Your task to perform on an android device: Search for energizer triple a on walmart.com, select the first entry, and add it to the cart. Image 0: 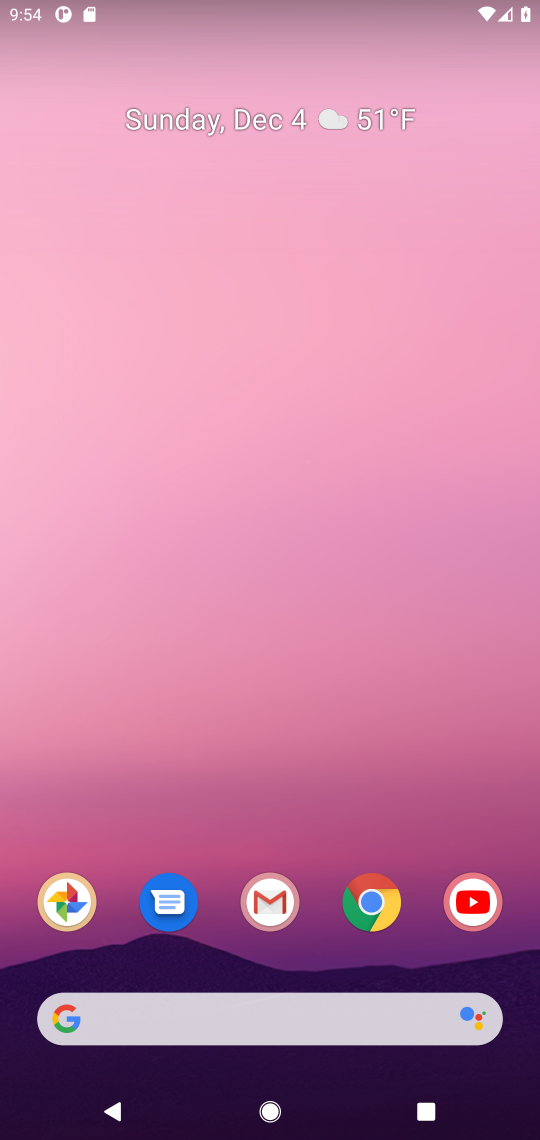
Step 0: click (381, 899)
Your task to perform on an android device: Search for energizer triple a on walmart.com, select the first entry, and add it to the cart. Image 1: 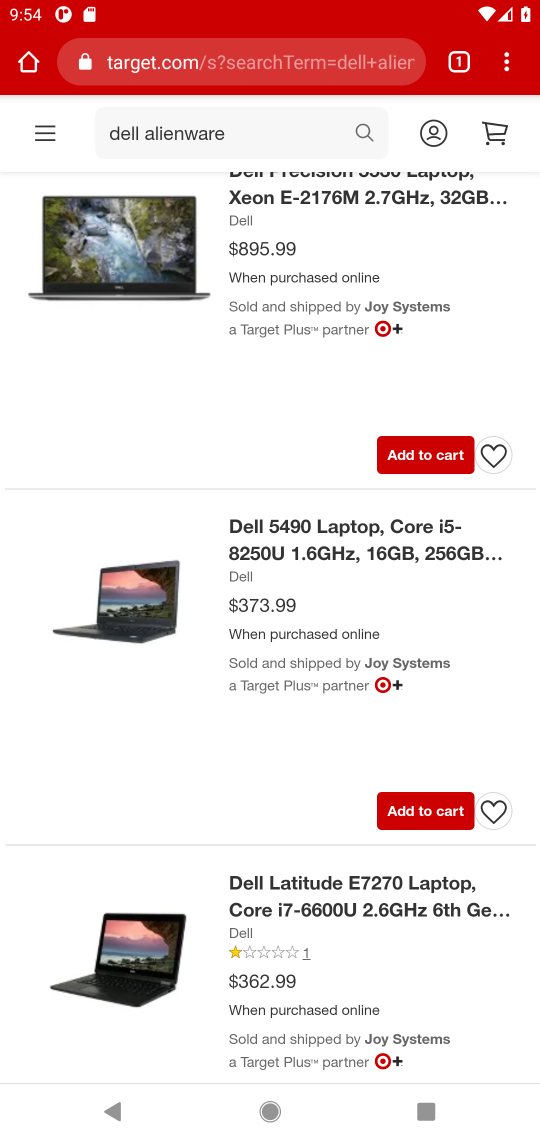
Step 1: click (148, 69)
Your task to perform on an android device: Search for energizer triple a on walmart.com, select the first entry, and add it to the cart. Image 2: 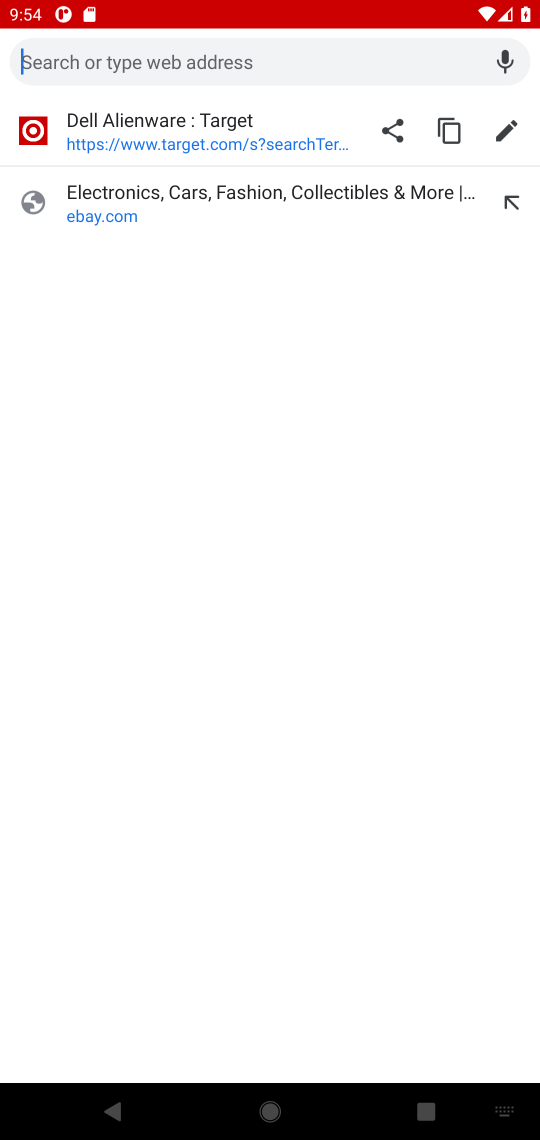
Step 2: type "walmart"
Your task to perform on an android device: Search for energizer triple a on walmart.com, select the first entry, and add it to the cart. Image 3: 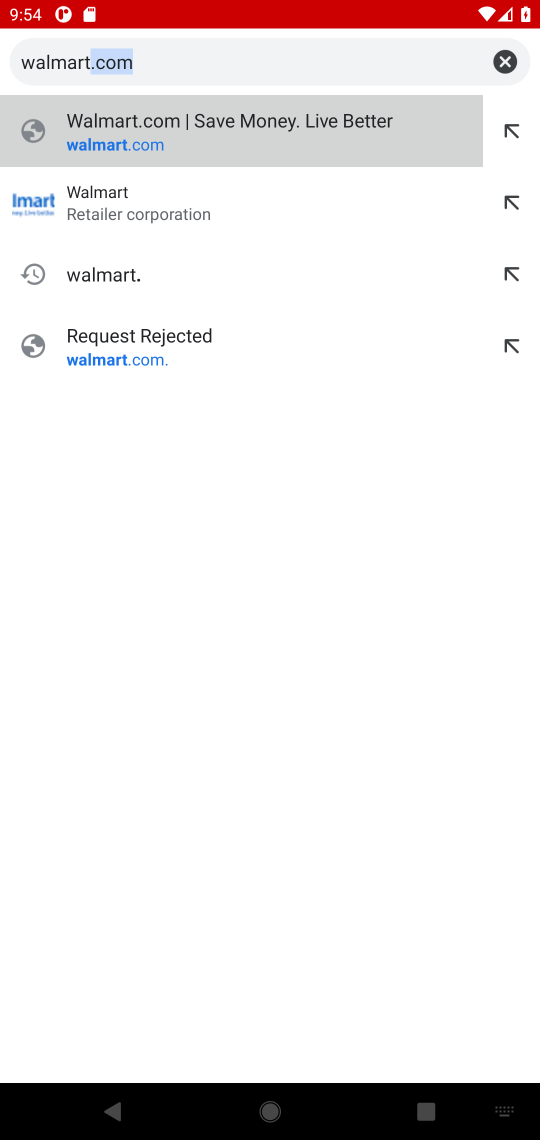
Step 3: click (138, 121)
Your task to perform on an android device: Search for energizer triple a on walmart.com, select the first entry, and add it to the cart. Image 4: 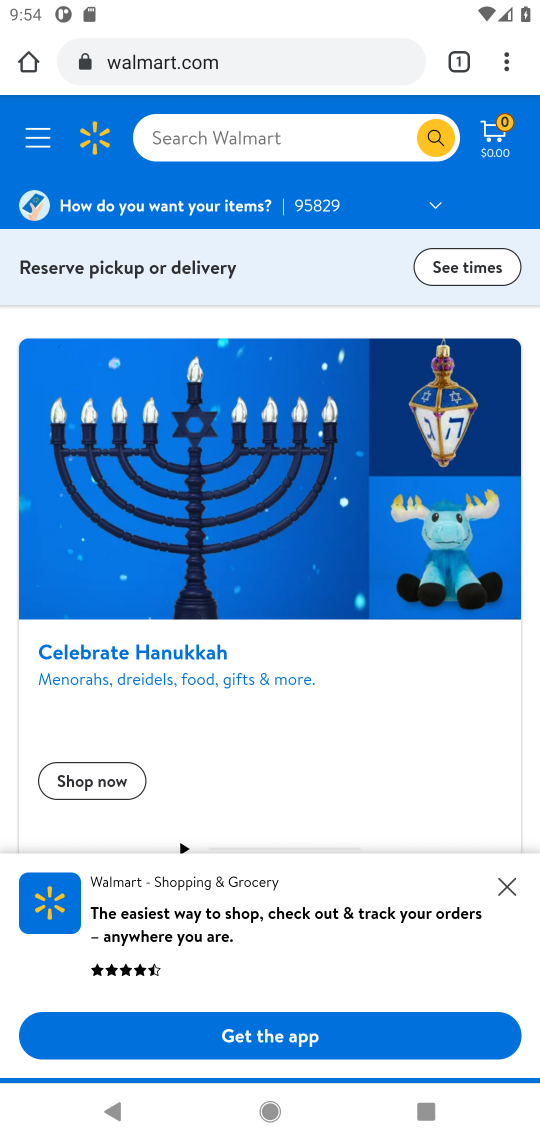
Step 4: click (229, 128)
Your task to perform on an android device: Search for energizer triple a on walmart.com, select the first entry, and add it to the cart. Image 5: 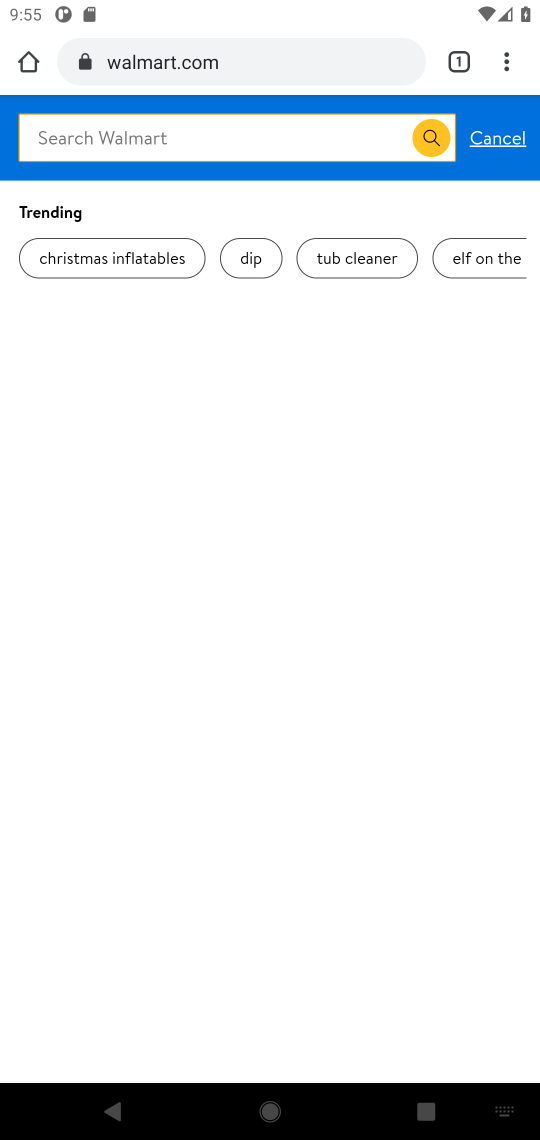
Step 5: type "energizer triple a"
Your task to perform on an android device: Search for energizer triple a on walmart.com, select the first entry, and add it to the cart. Image 6: 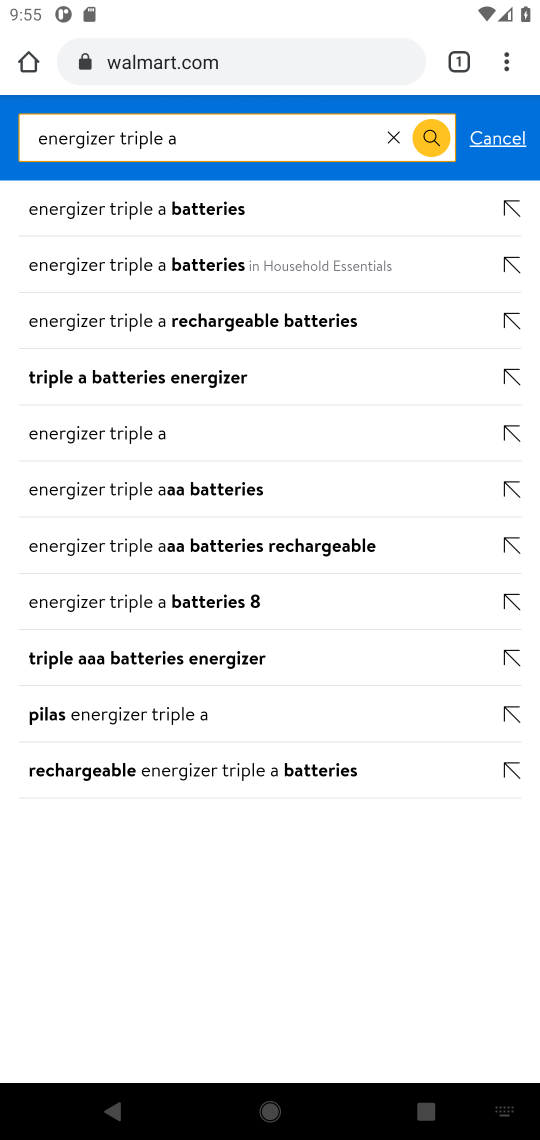
Step 6: click (418, 125)
Your task to perform on an android device: Search for energizer triple a on walmart.com, select the first entry, and add it to the cart. Image 7: 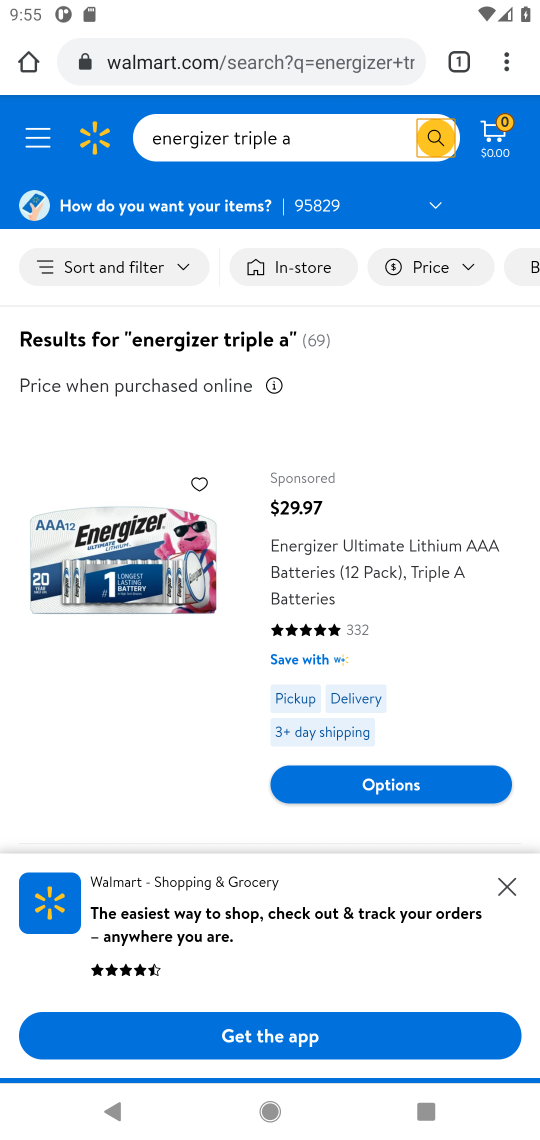
Step 7: drag from (206, 723) to (193, 199)
Your task to perform on an android device: Search for energizer triple a on walmart.com, select the first entry, and add it to the cart. Image 8: 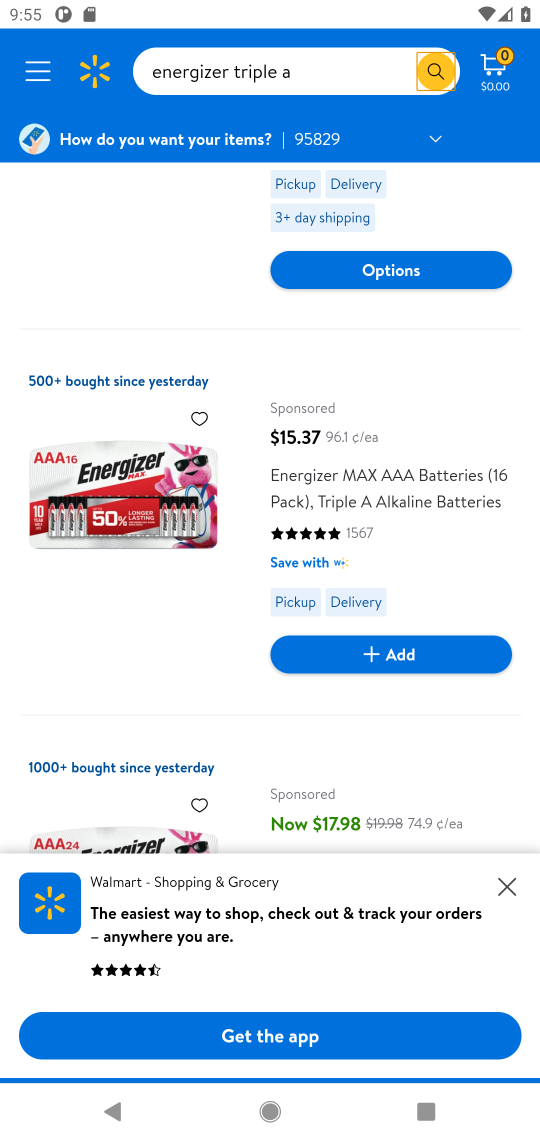
Step 8: click (511, 886)
Your task to perform on an android device: Search for energizer triple a on walmart.com, select the first entry, and add it to the cart. Image 9: 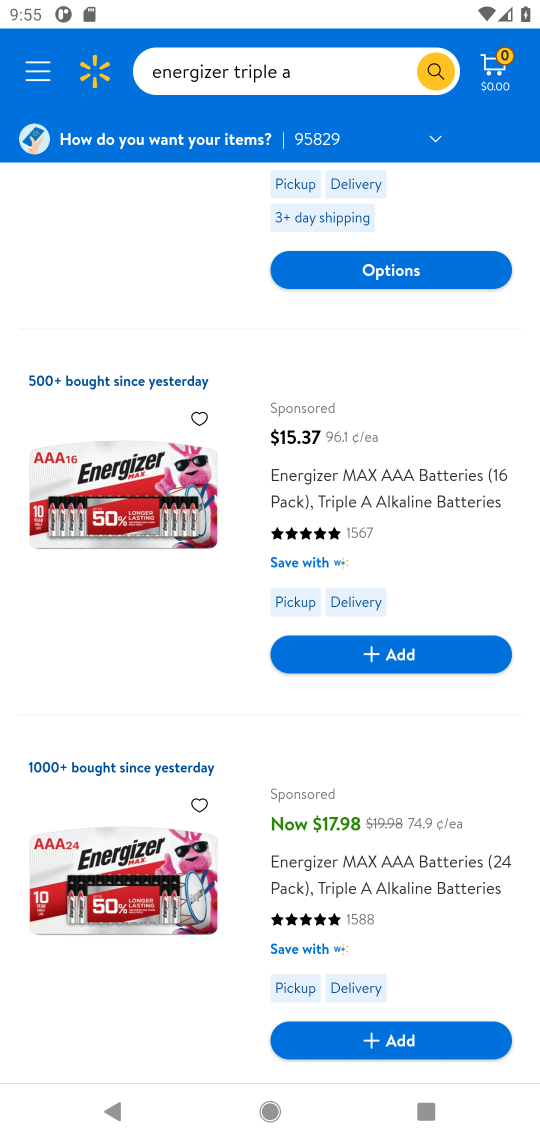
Step 9: click (385, 1049)
Your task to perform on an android device: Search for energizer triple a on walmart.com, select the first entry, and add it to the cart. Image 10: 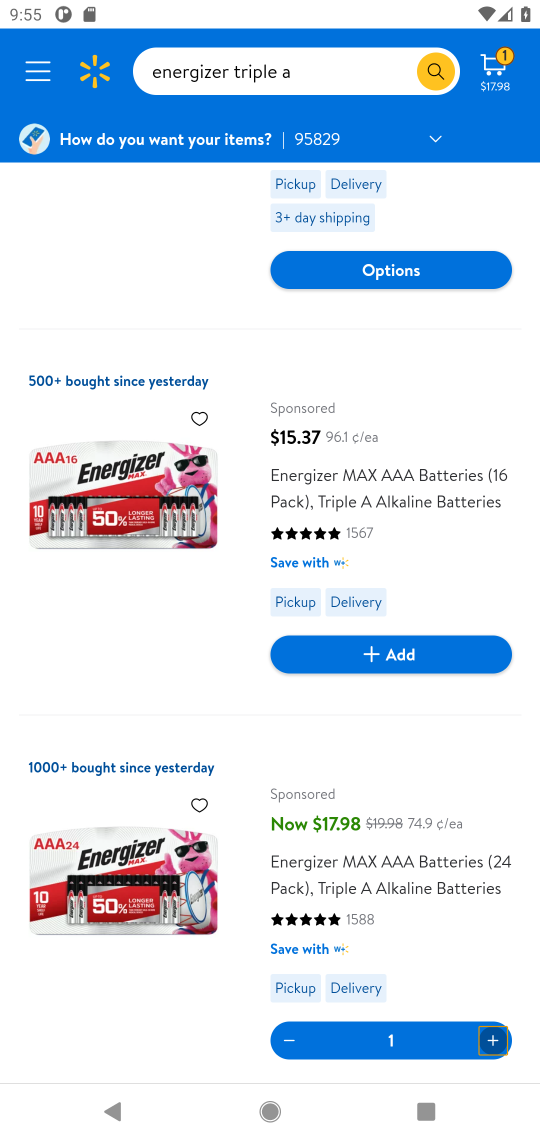
Step 10: task complete